Your task to perform on an android device: Open the map Image 0: 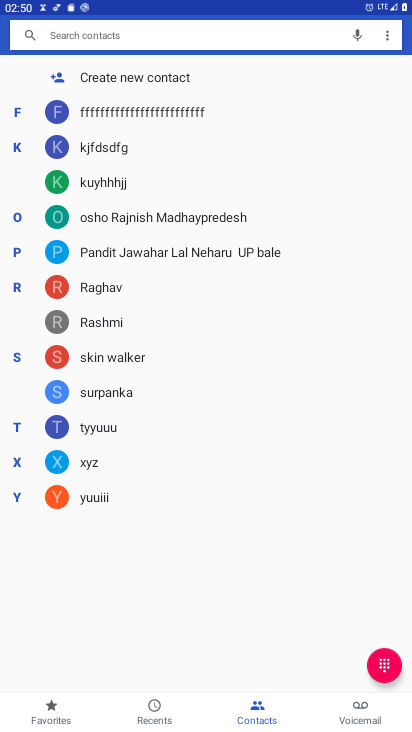
Step 0: press home button
Your task to perform on an android device: Open the map Image 1: 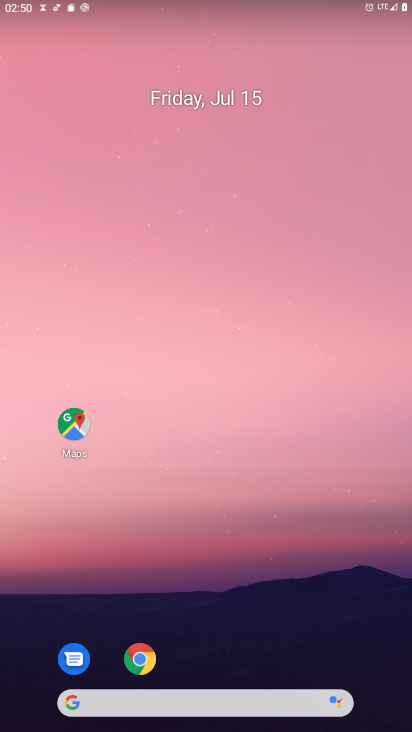
Step 1: click (75, 433)
Your task to perform on an android device: Open the map Image 2: 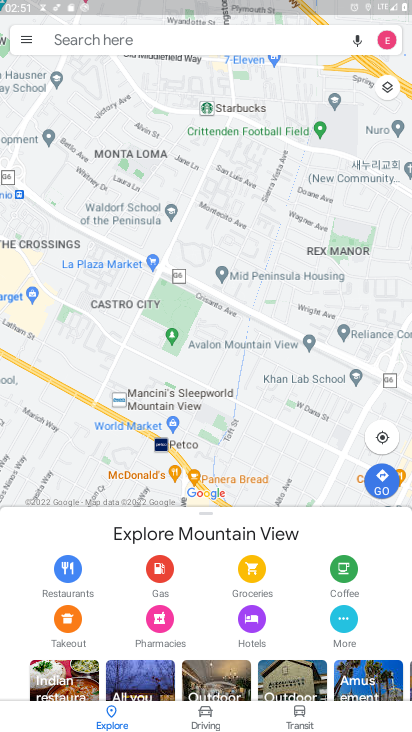
Step 2: task complete